Your task to perform on an android device: Open Amazon Image 0: 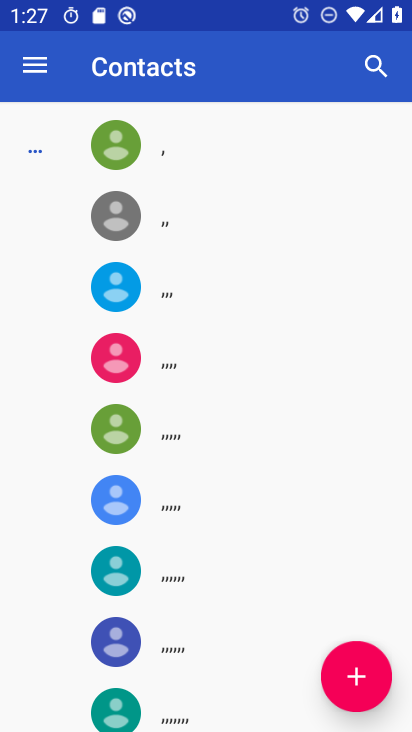
Step 0: press home button
Your task to perform on an android device: Open Amazon Image 1: 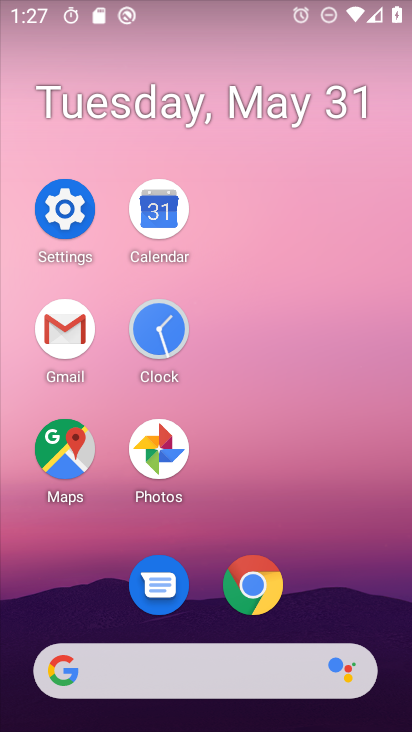
Step 1: click (256, 581)
Your task to perform on an android device: Open Amazon Image 2: 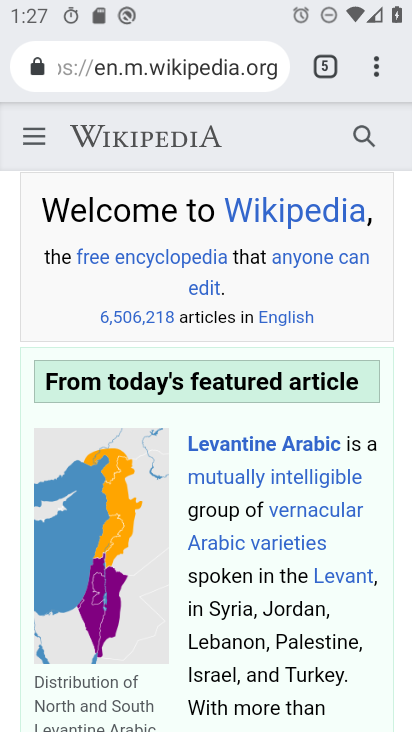
Step 2: click (321, 64)
Your task to perform on an android device: Open Amazon Image 3: 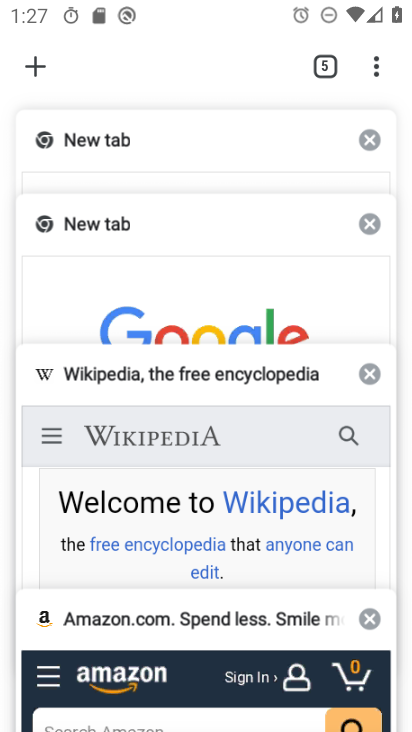
Step 3: click (44, 66)
Your task to perform on an android device: Open Amazon Image 4: 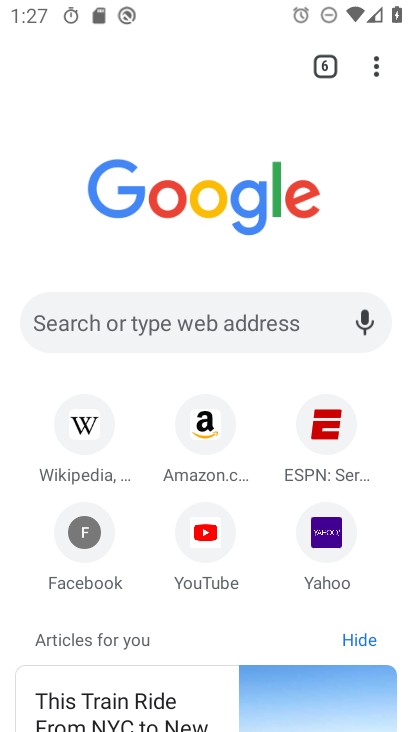
Step 4: click (199, 429)
Your task to perform on an android device: Open Amazon Image 5: 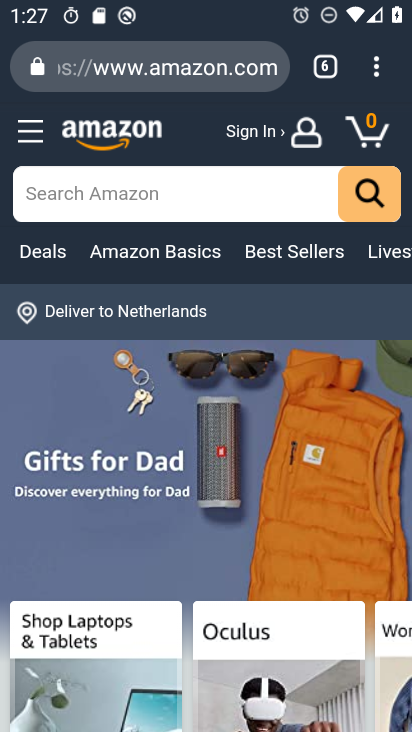
Step 5: task complete